Your task to perform on an android device: turn on wifi Image 0: 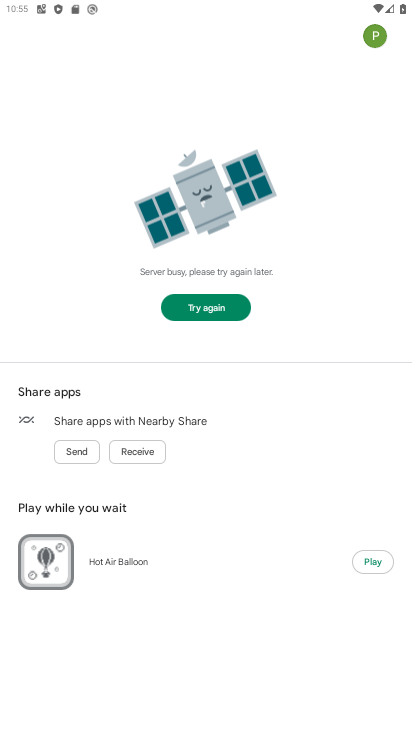
Step 0: press home button
Your task to perform on an android device: turn on wifi Image 1: 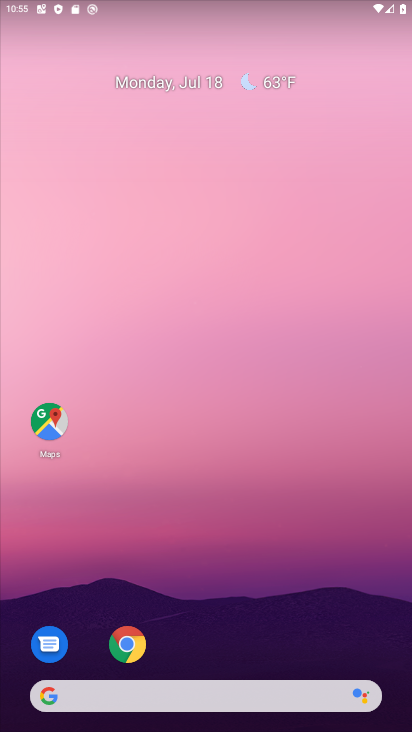
Step 1: drag from (251, 633) to (208, 79)
Your task to perform on an android device: turn on wifi Image 2: 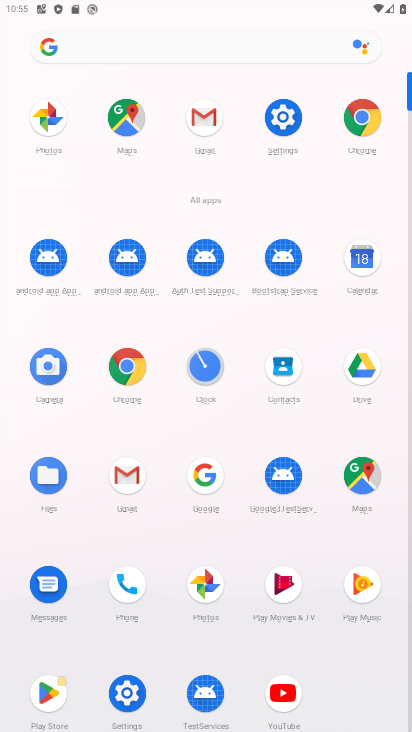
Step 2: click (274, 109)
Your task to perform on an android device: turn on wifi Image 3: 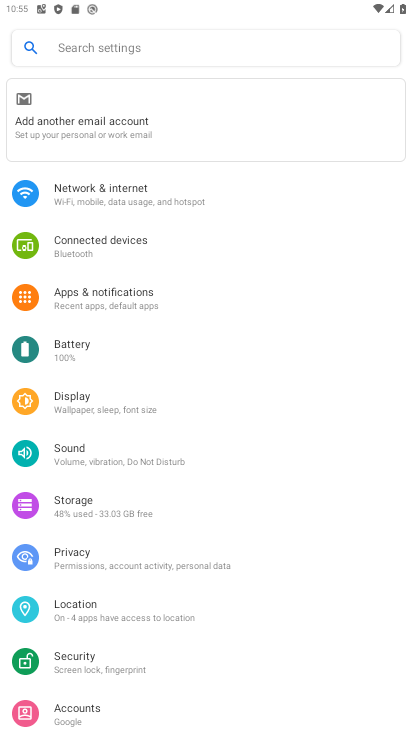
Step 3: click (128, 170)
Your task to perform on an android device: turn on wifi Image 4: 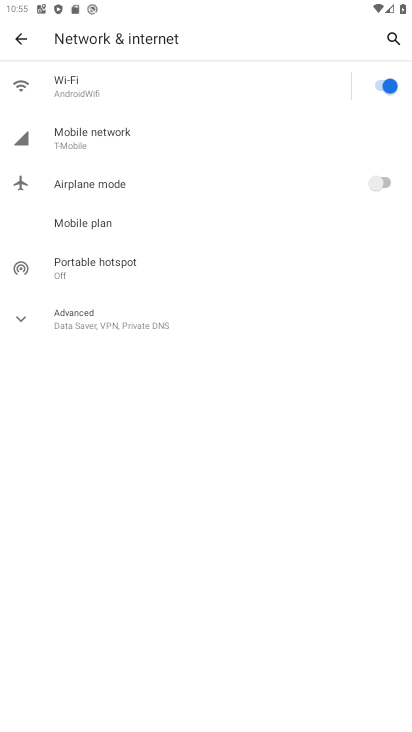
Step 4: task complete